Your task to perform on an android device: move an email to a new category in the gmail app Image 0: 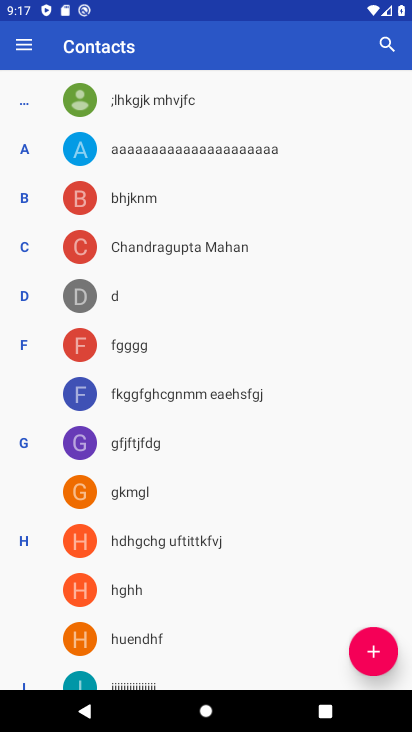
Step 0: press home button
Your task to perform on an android device: move an email to a new category in the gmail app Image 1: 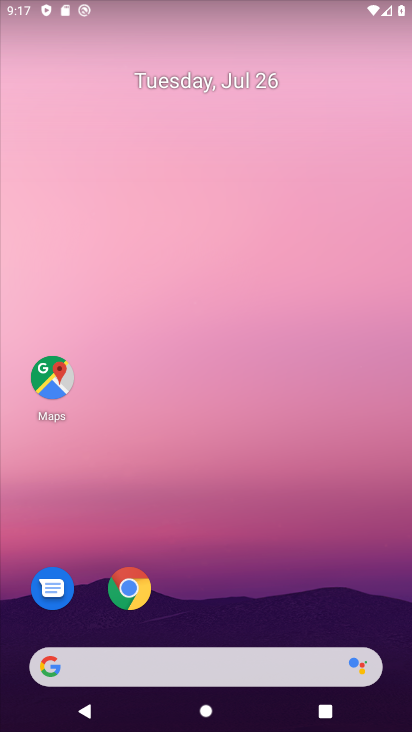
Step 1: drag from (189, 544) to (189, 119)
Your task to perform on an android device: move an email to a new category in the gmail app Image 2: 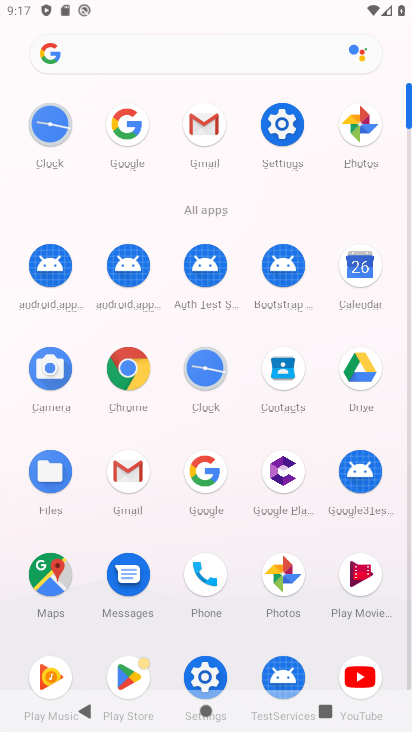
Step 2: click (203, 127)
Your task to perform on an android device: move an email to a new category in the gmail app Image 3: 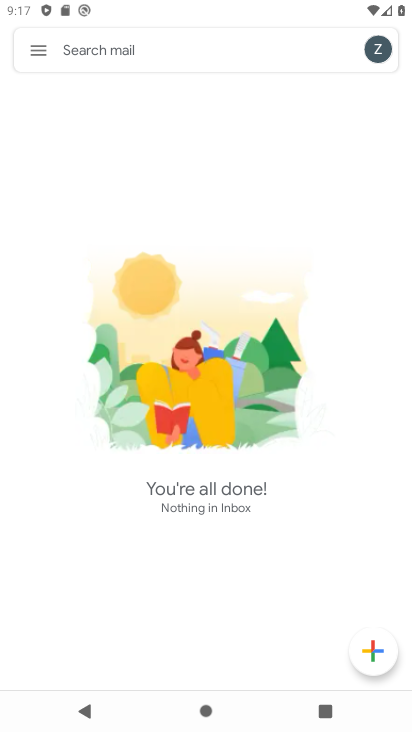
Step 3: task complete